Your task to perform on an android device: toggle show notifications on the lock screen Image 0: 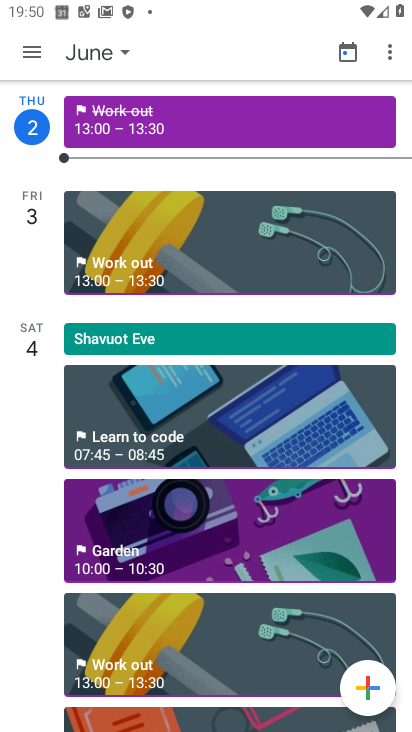
Step 0: press home button
Your task to perform on an android device: toggle show notifications on the lock screen Image 1: 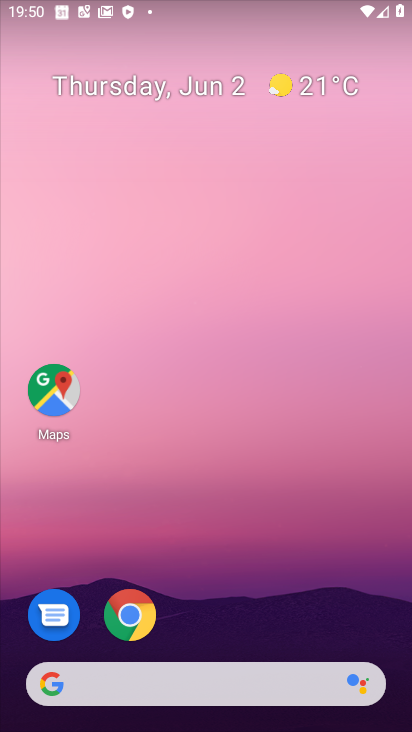
Step 1: drag from (308, 592) to (245, 100)
Your task to perform on an android device: toggle show notifications on the lock screen Image 2: 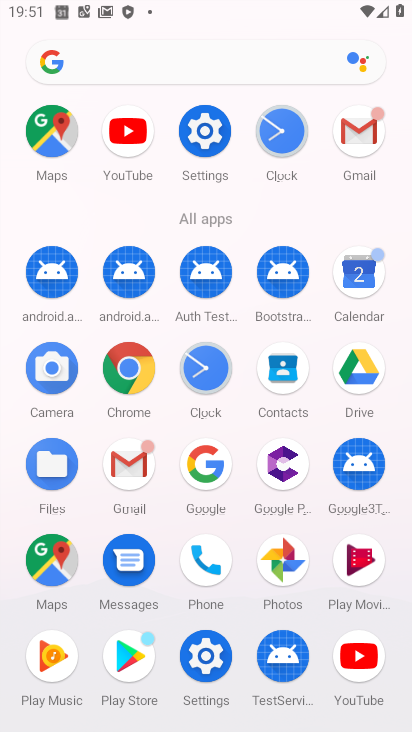
Step 2: click (205, 173)
Your task to perform on an android device: toggle show notifications on the lock screen Image 3: 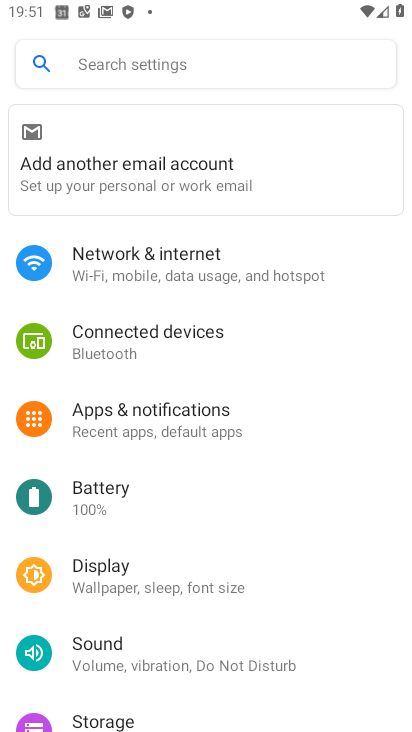
Step 3: drag from (210, 608) to (242, 237)
Your task to perform on an android device: toggle show notifications on the lock screen Image 4: 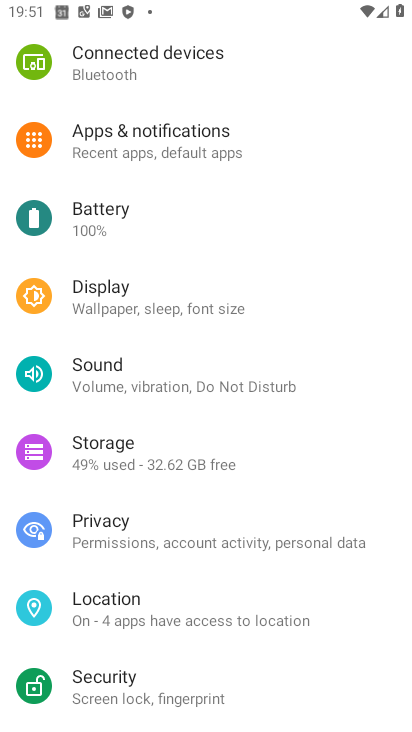
Step 4: click (167, 154)
Your task to perform on an android device: toggle show notifications on the lock screen Image 5: 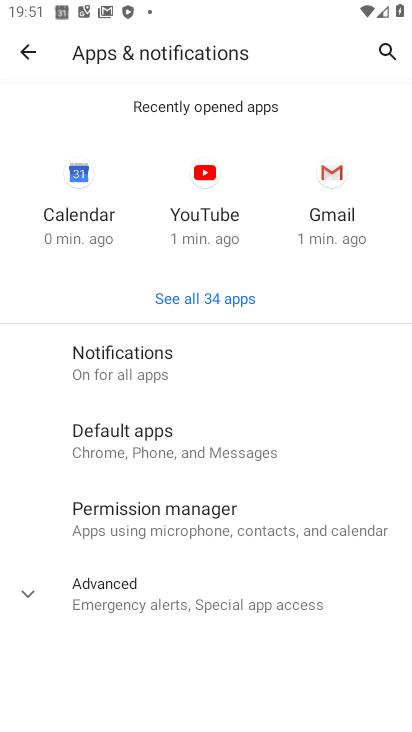
Step 5: click (180, 580)
Your task to perform on an android device: toggle show notifications on the lock screen Image 6: 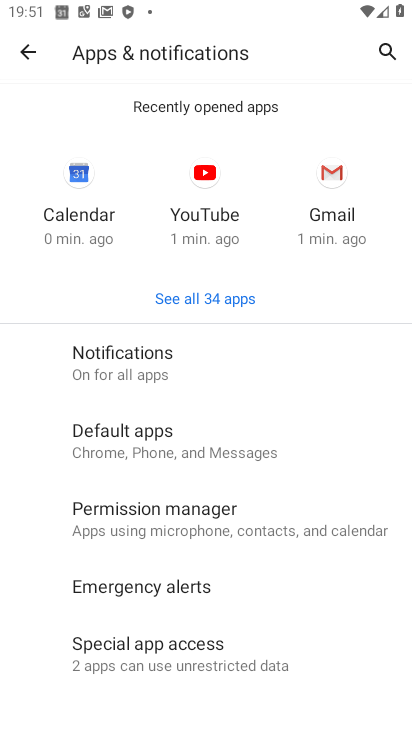
Step 6: click (231, 654)
Your task to perform on an android device: toggle show notifications on the lock screen Image 7: 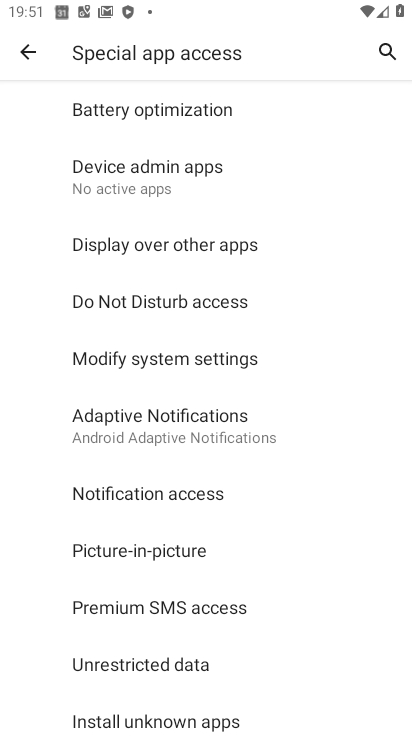
Step 7: task complete